Your task to perform on an android device: Search for "usb-a" on newegg.com, select the first entry, and add it to the cart. Image 0: 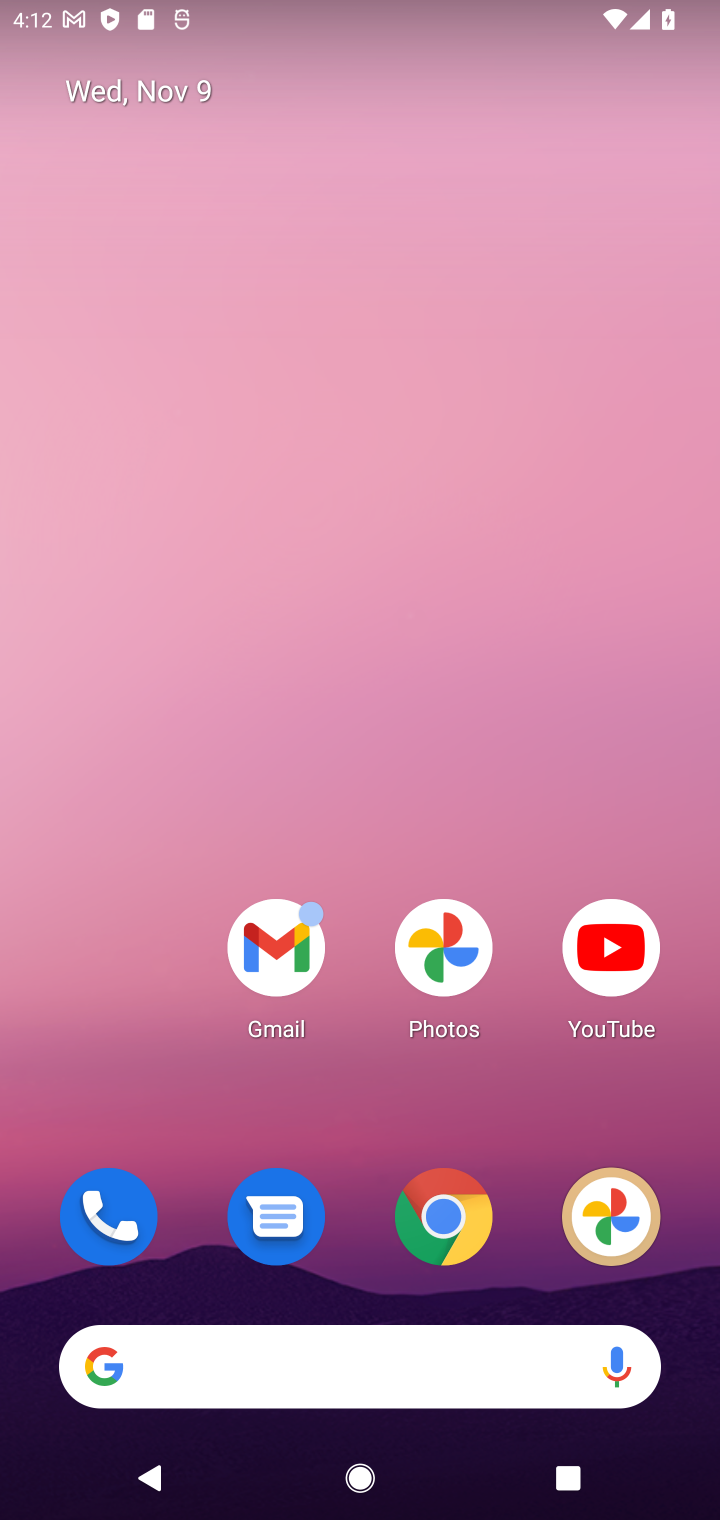
Step 0: click (605, 133)
Your task to perform on an android device: Search for "usb-a" on newegg.com, select the first entry, and add it to the cart. Image 1: 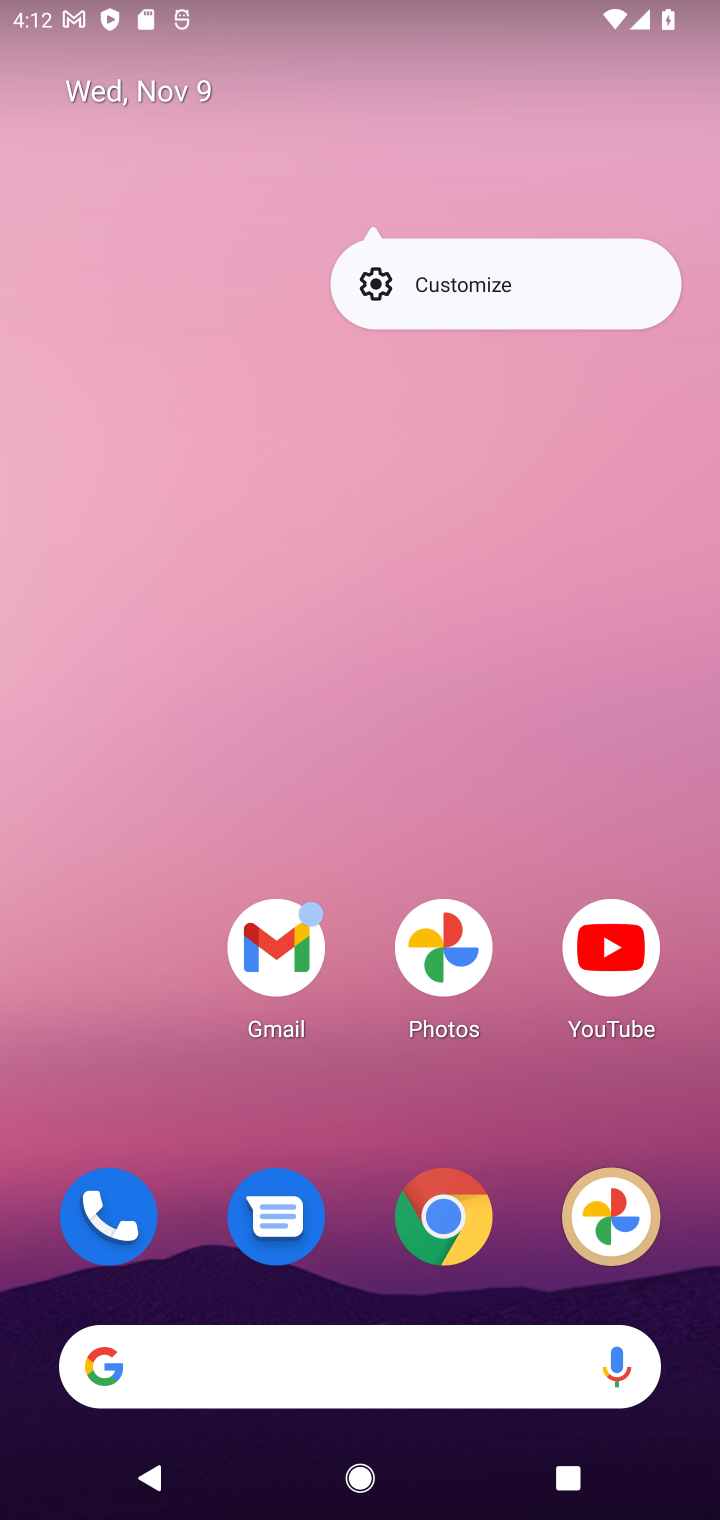
Step 1: click (367, 1094)
Your task to perform on an android device: Search for "usb-a" on newegg.com, select the first entry, and add it to the cart. Image 2: 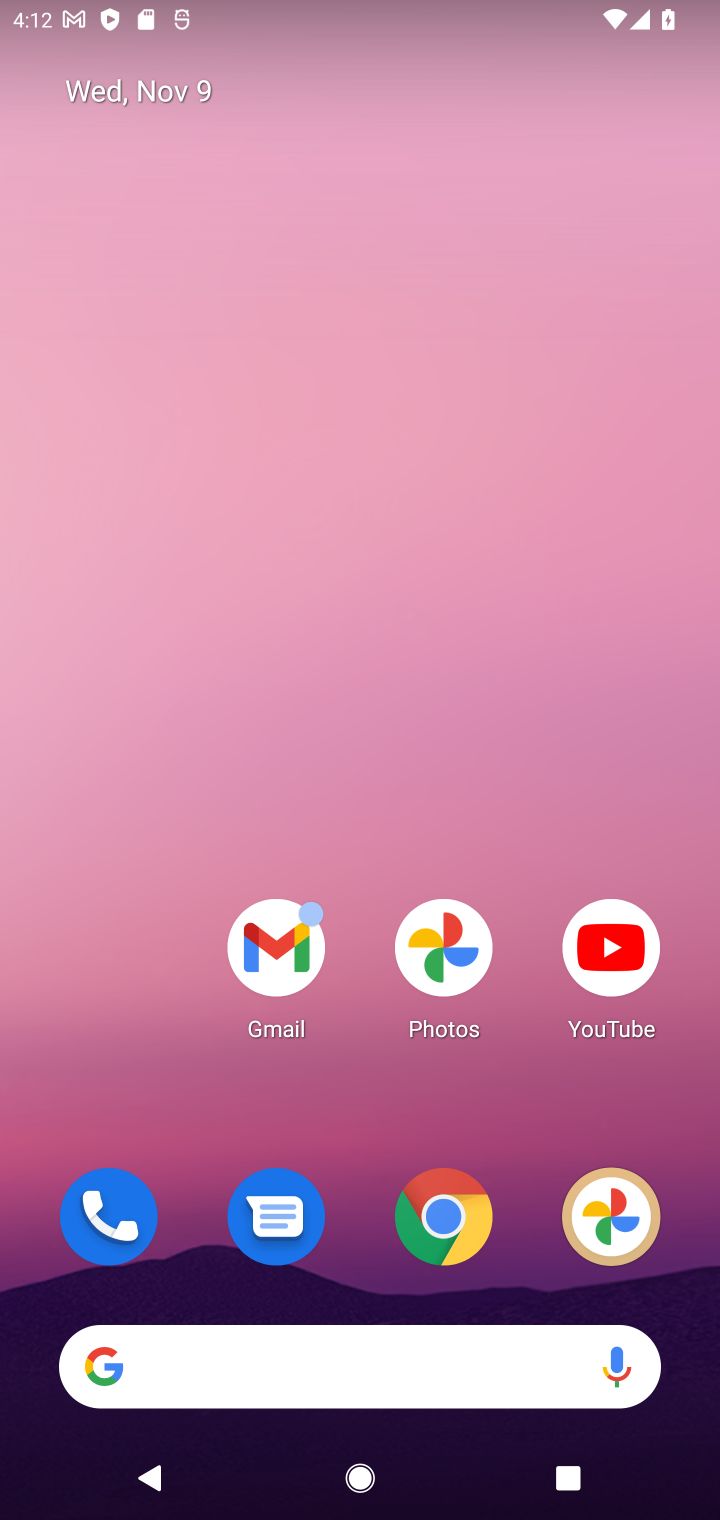
Step 2: drag from (378, 1042) to (362, 141)
Your task to perform on an android device: Search for "usb-a" on newegg.com, select the first entry, and add it to the cart. Image 3: 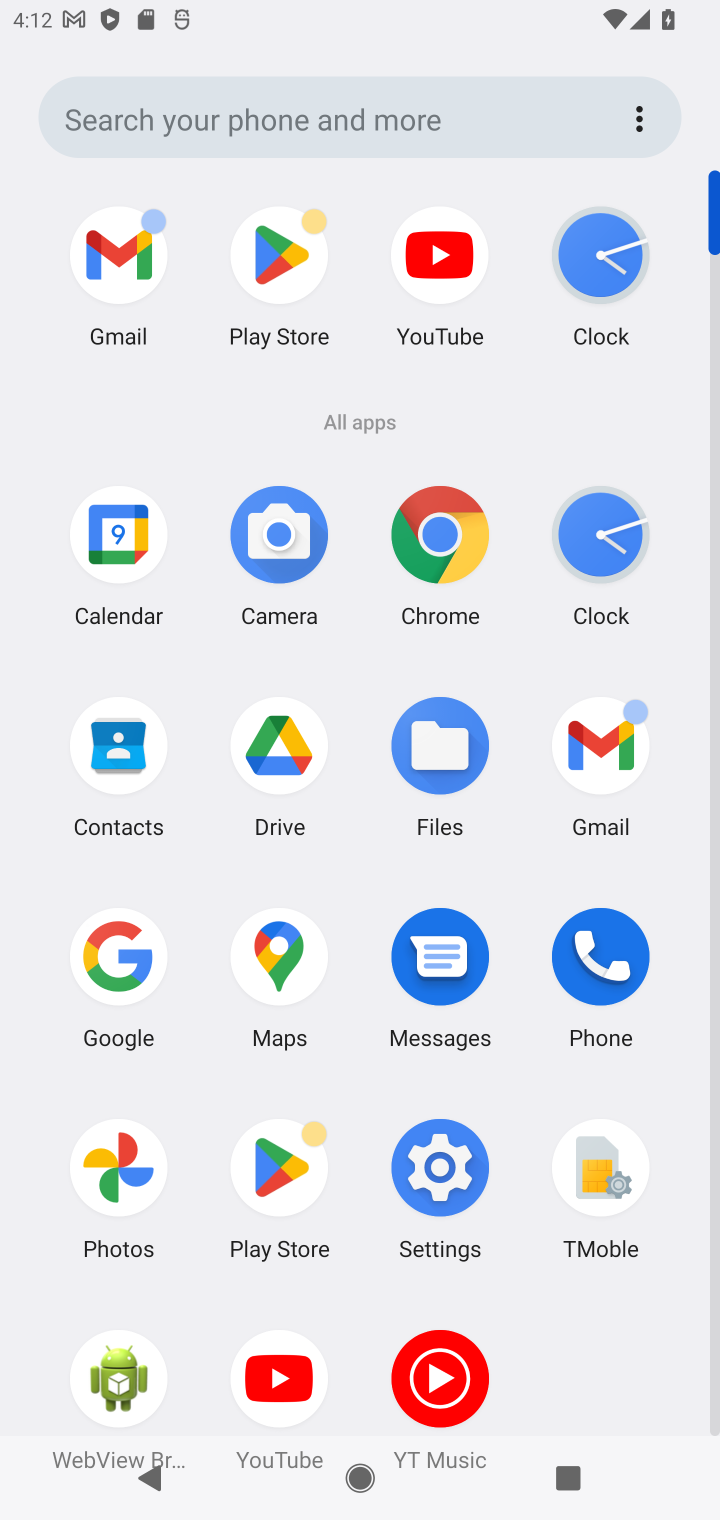
Step 3: click (431, 542)
Your task to perform on an android device: Search for "usb-a" on newegg.com, select the first entry, and add it to the cart. Image 4: 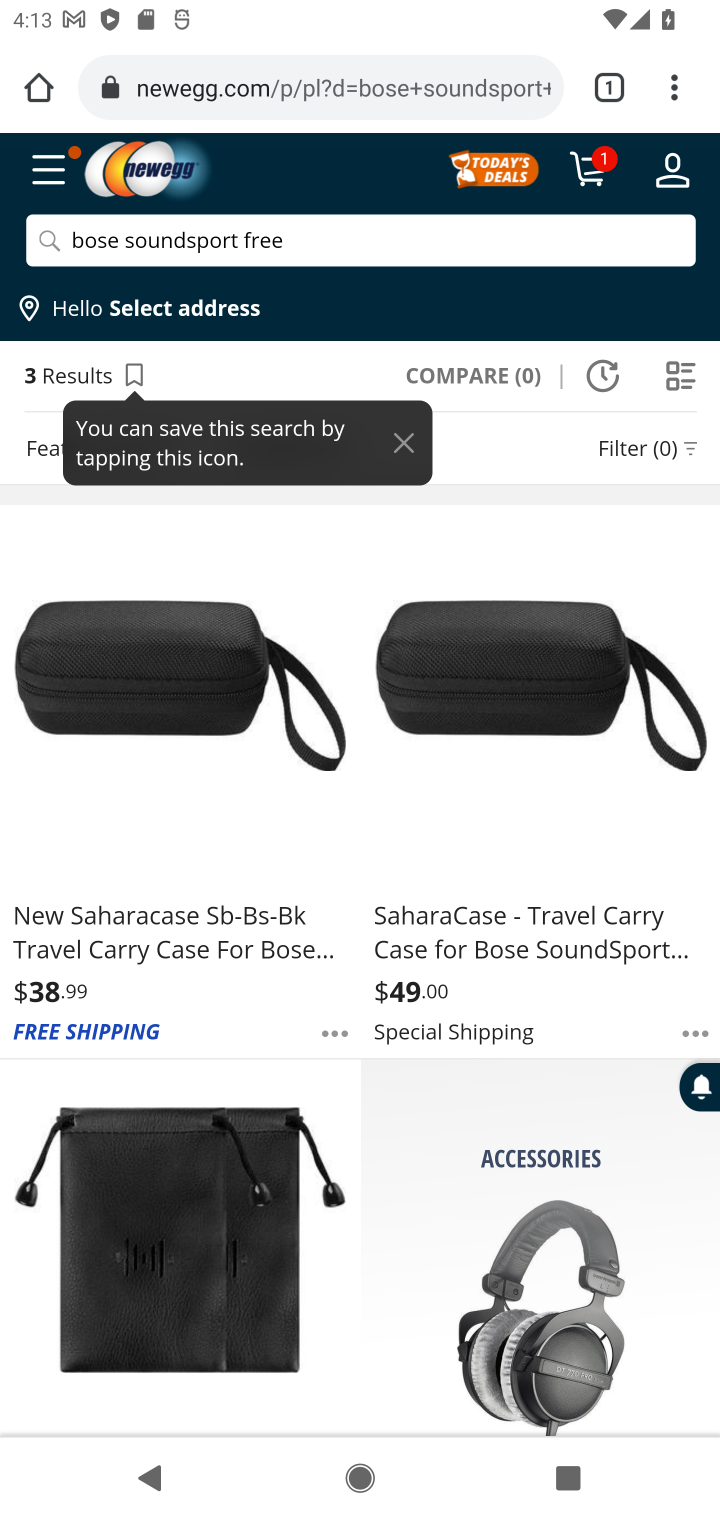
Step 4: click (610, 236)
Your task to perform on an android device: Search for "usb-a" on newegg.com, select the first entry, and add it to the cart. Image 5: 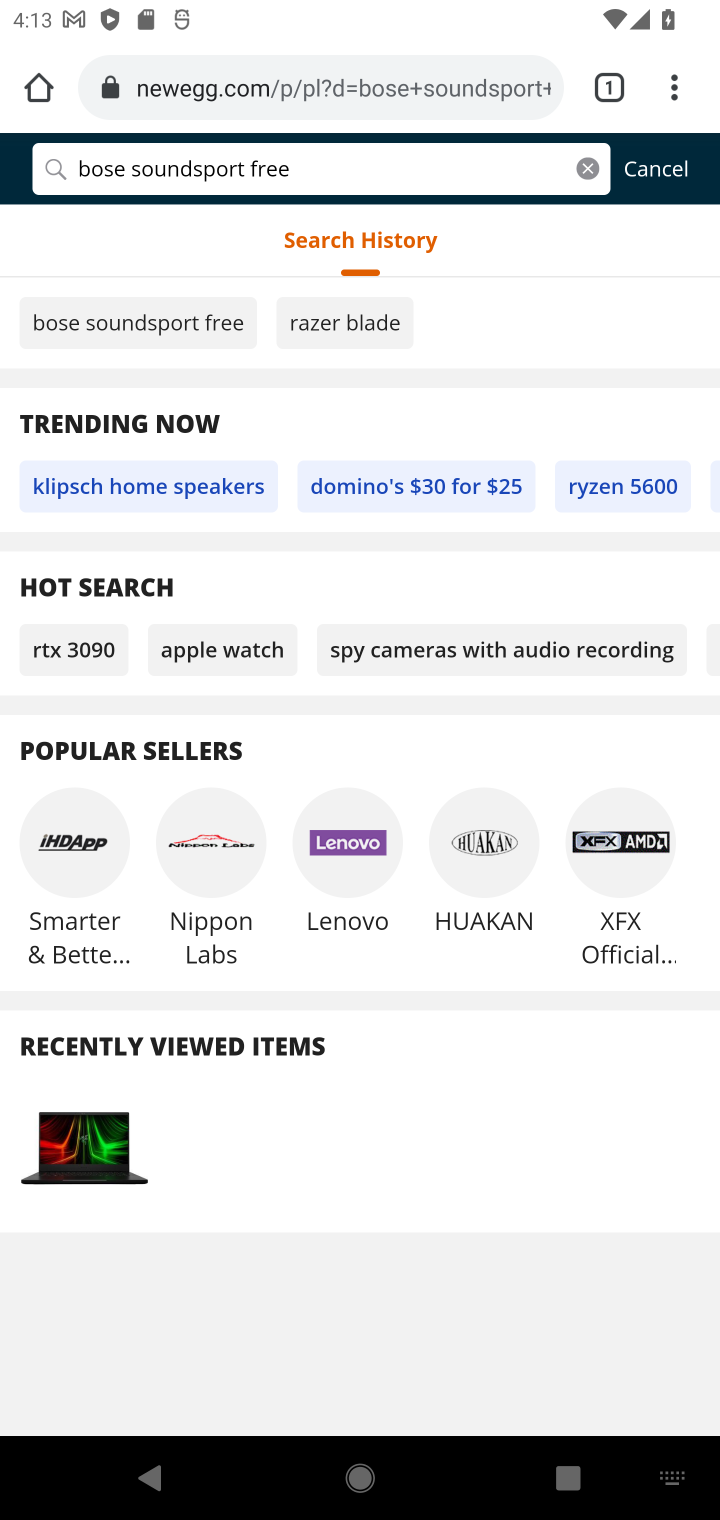
Step 5: click (582, 152)
Your task to perform on an android device: Search for "usb-a" on newegg.com, select the first entry, and add it to the cart. Image 6: 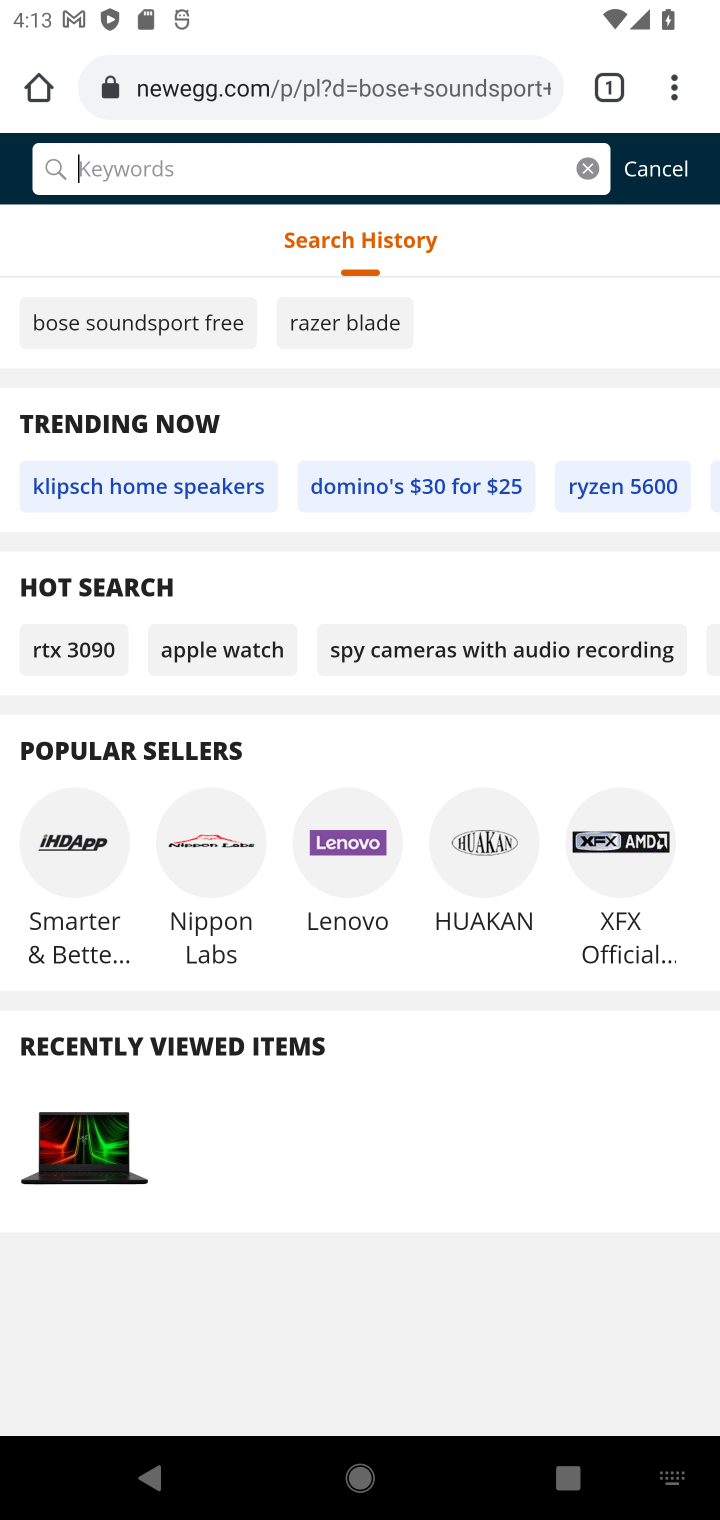
Step 6: type "usb-a"
Your task to perform on an android device: Search for "usb-a" on newegg.com, select the first entry, and add it to the cart. Image 7: 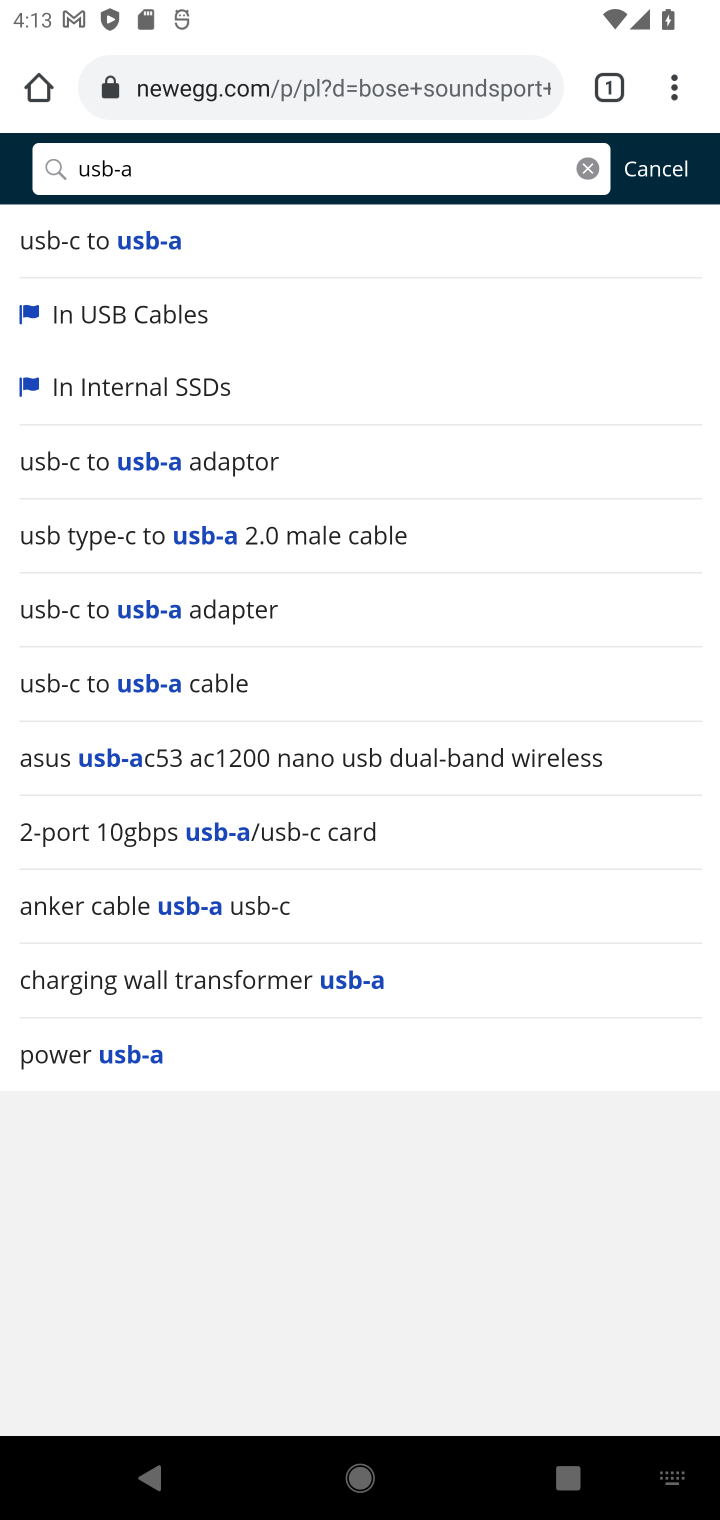
Step 7: press enter
Your task to perform on an android device: Search for "usb-a" on newegg.com, select the first entry, and add it to the cart. Image 8: 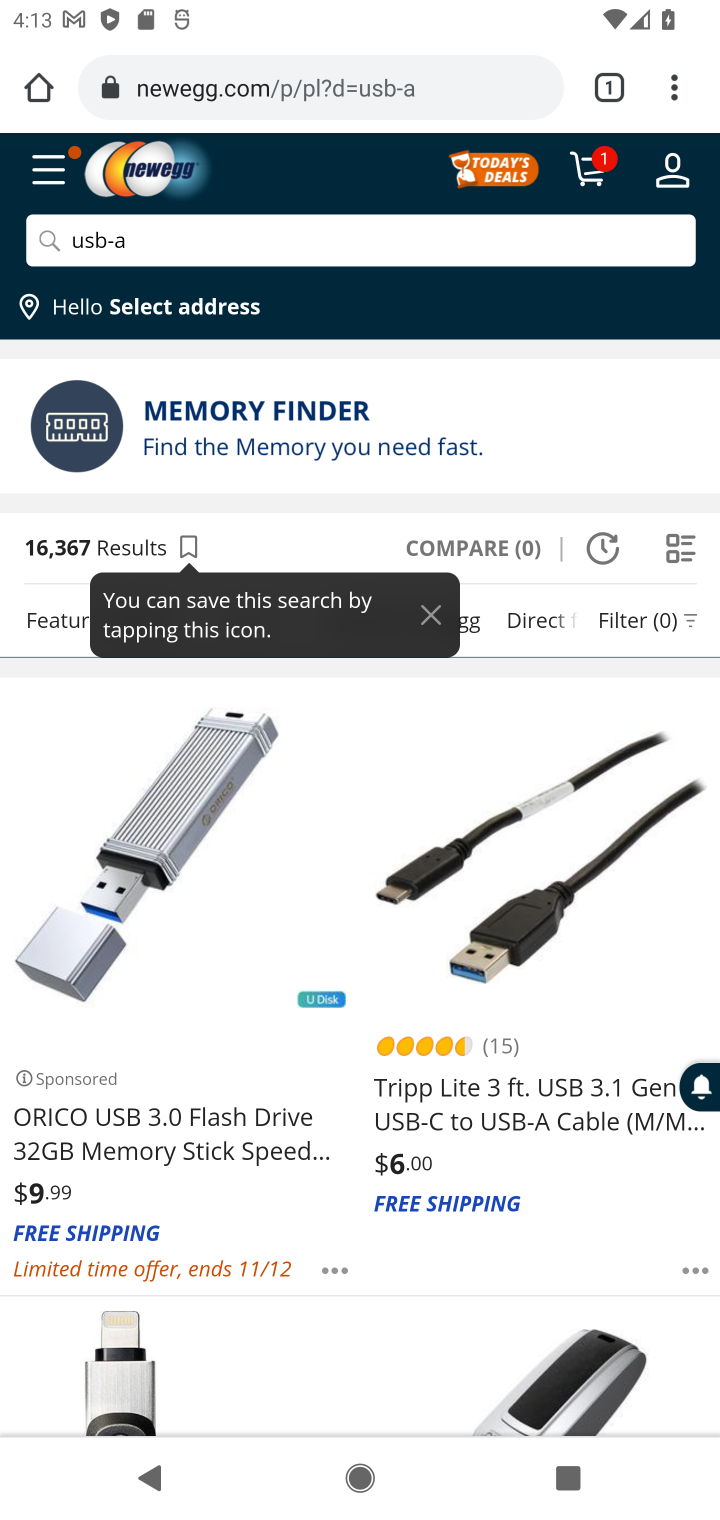
Step 8: click (548, 1090)
Your task to perform on an android device: Search for "usb-a" on newegg.com, select the first entry, and add it to the cart. Image 9: 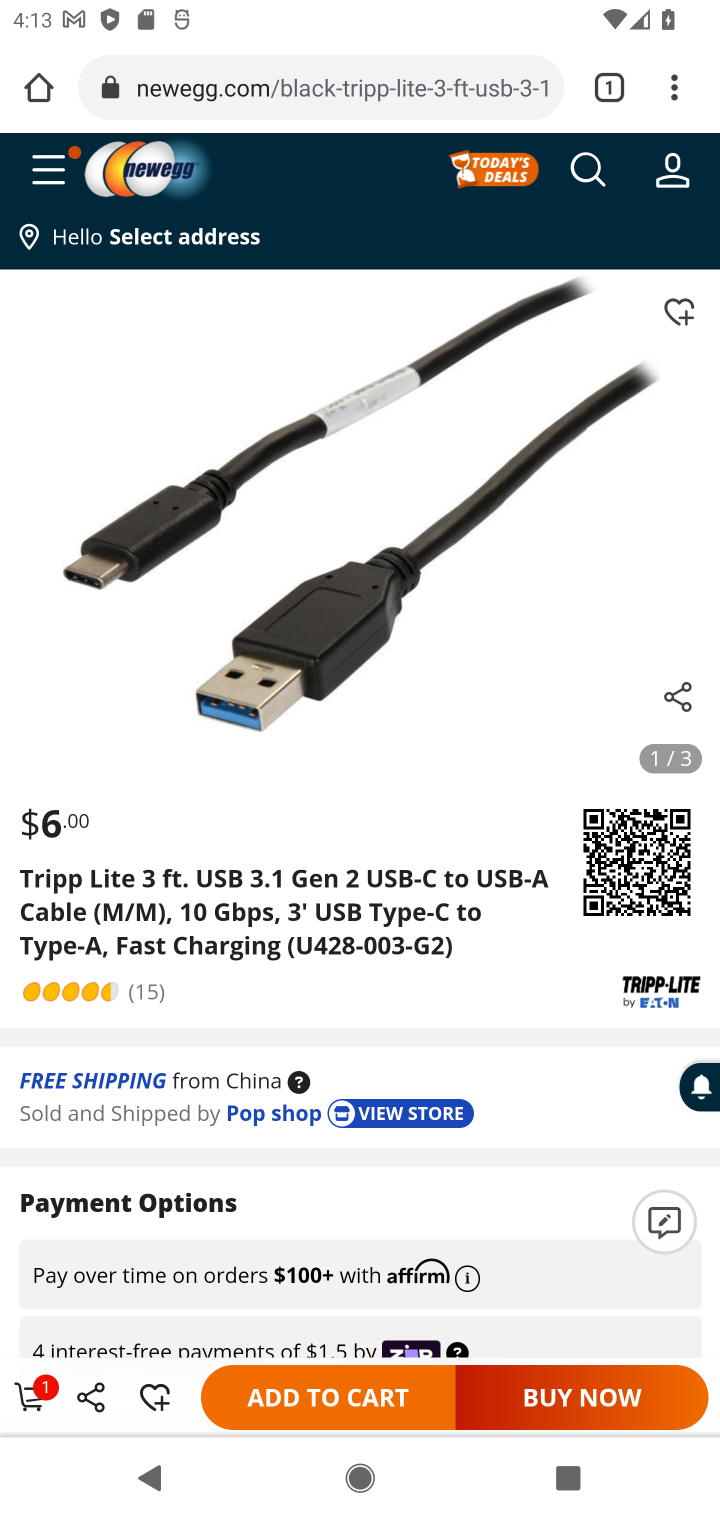
Step 9: click (321, 1395)
Your task to perform on an android device: Search for "usb-a" on newegg.com, select the first entry, and add it to the cart. Image 10: 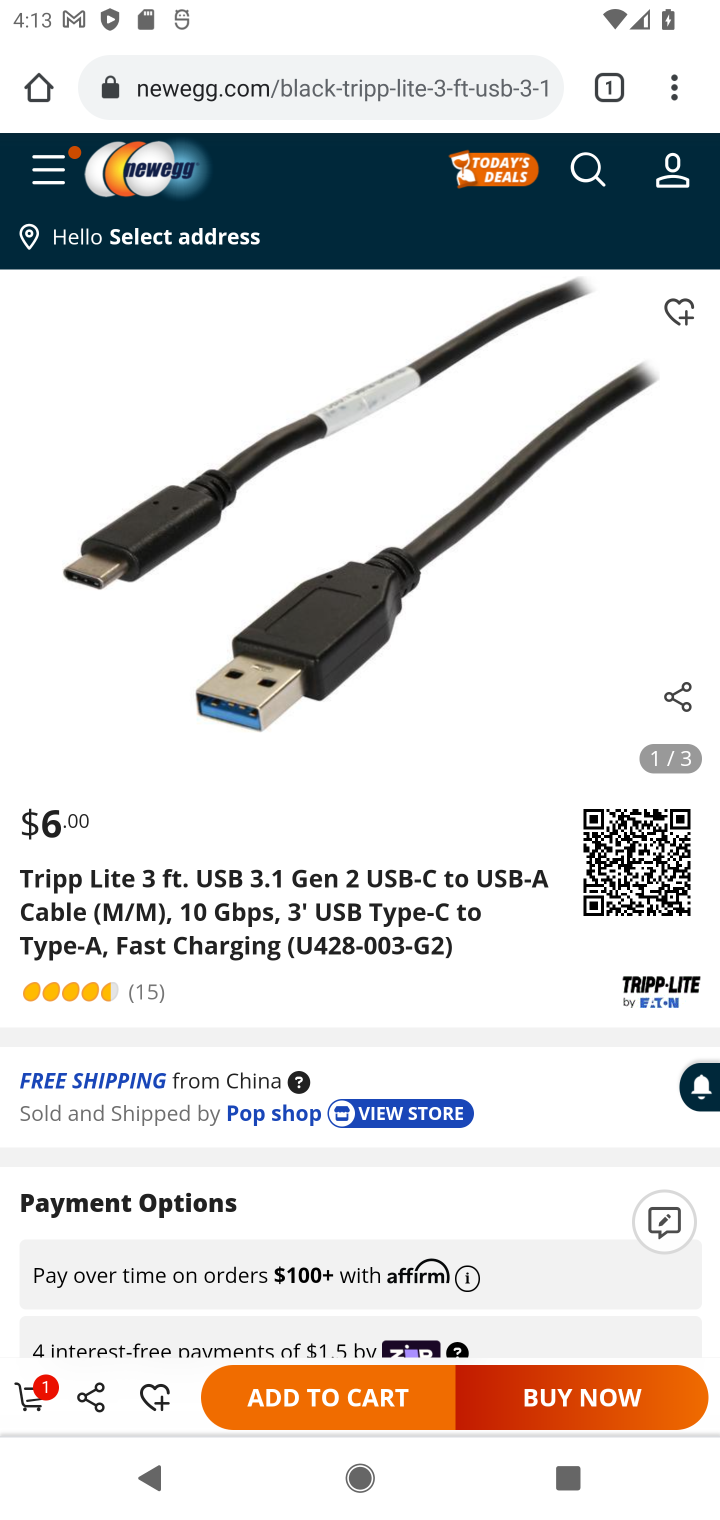
Step 10: click (331, 1395)
Your task to perform on an android device: Search for "usb-a" on newegg.com, select the first entry, and add it to the cart. Image 11: 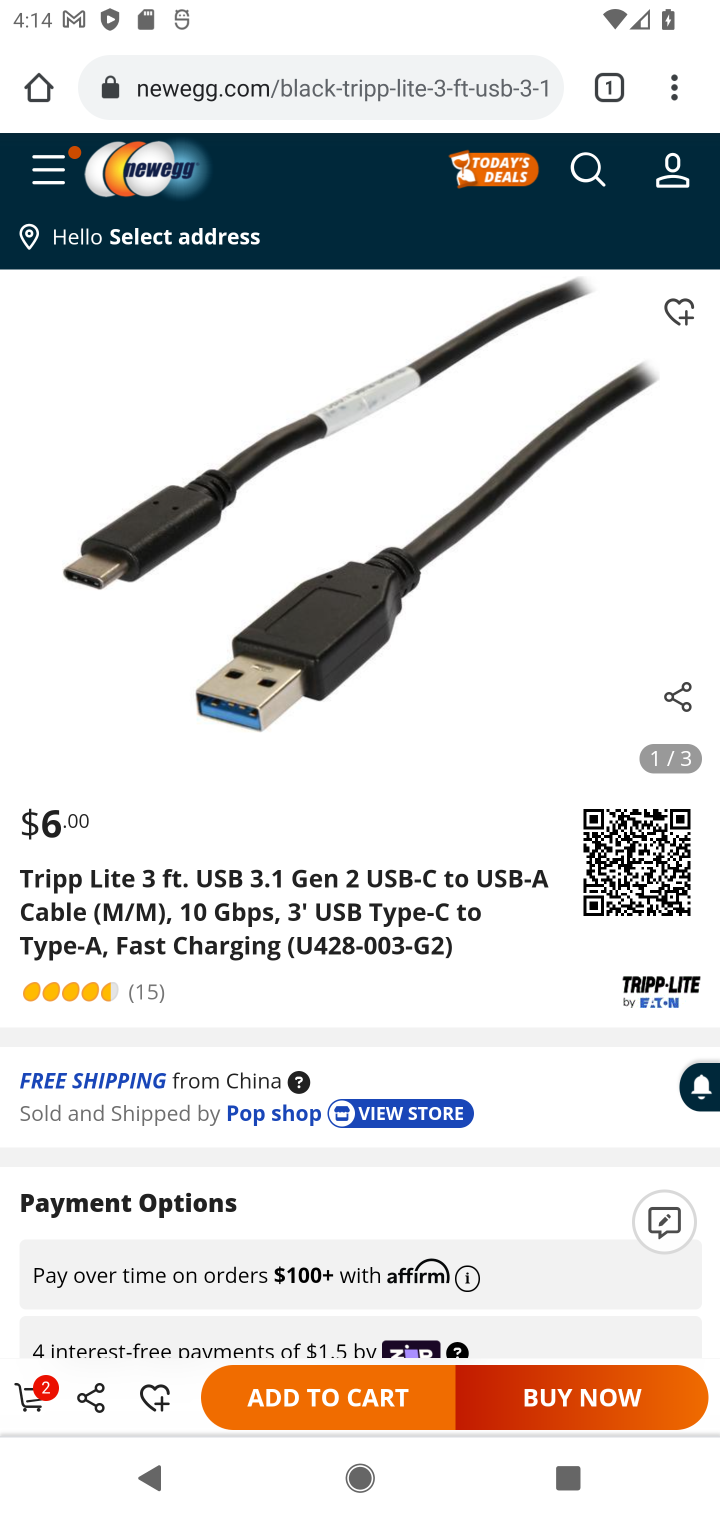
Step 11: click (242, 1415)
Your task to perform on an android device: Search for "usb-a" on newegg.com, select the first entry, and add it to the cart. Image 12: 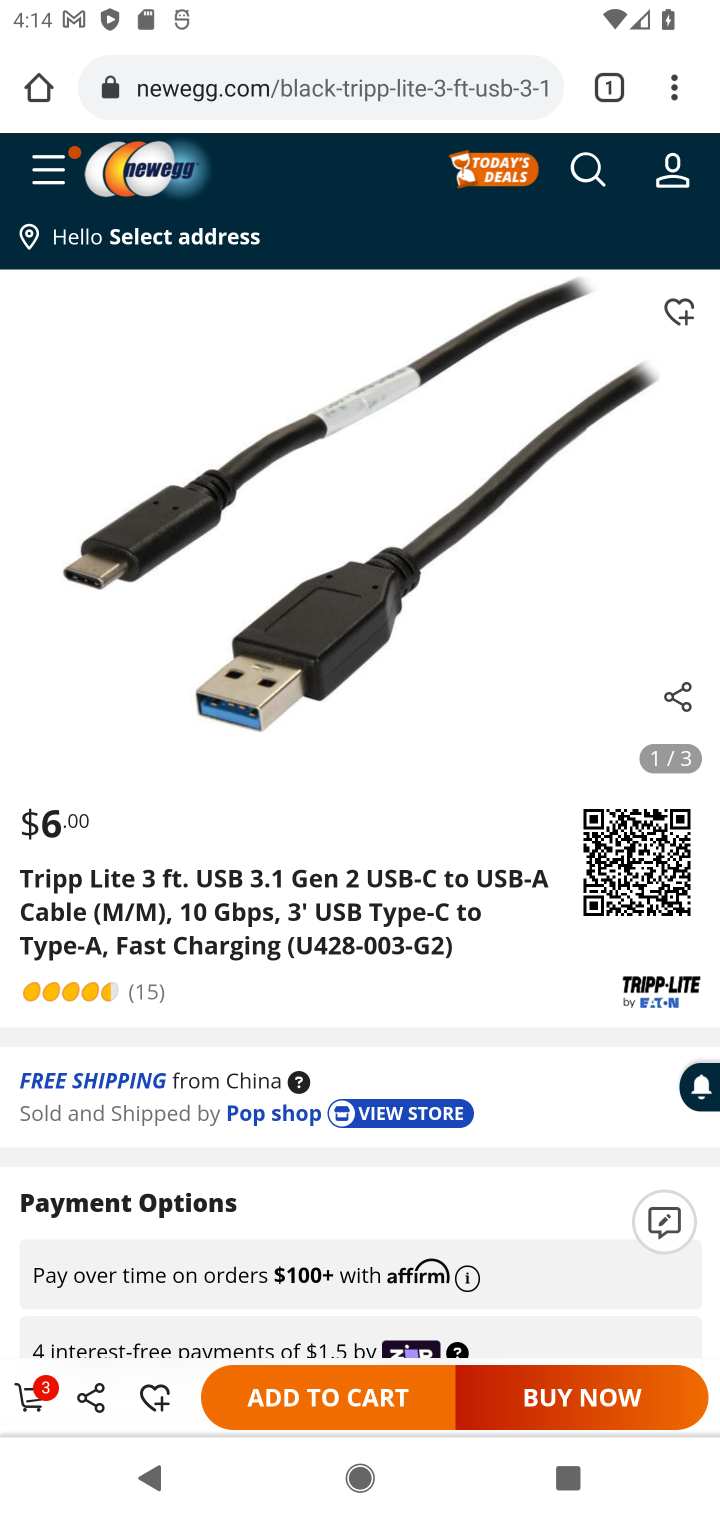
Step 12: task complete